Your task to perform on an android device: open app "TextNow: Call + Text Unlimited" (install if not already installed) Image 0: 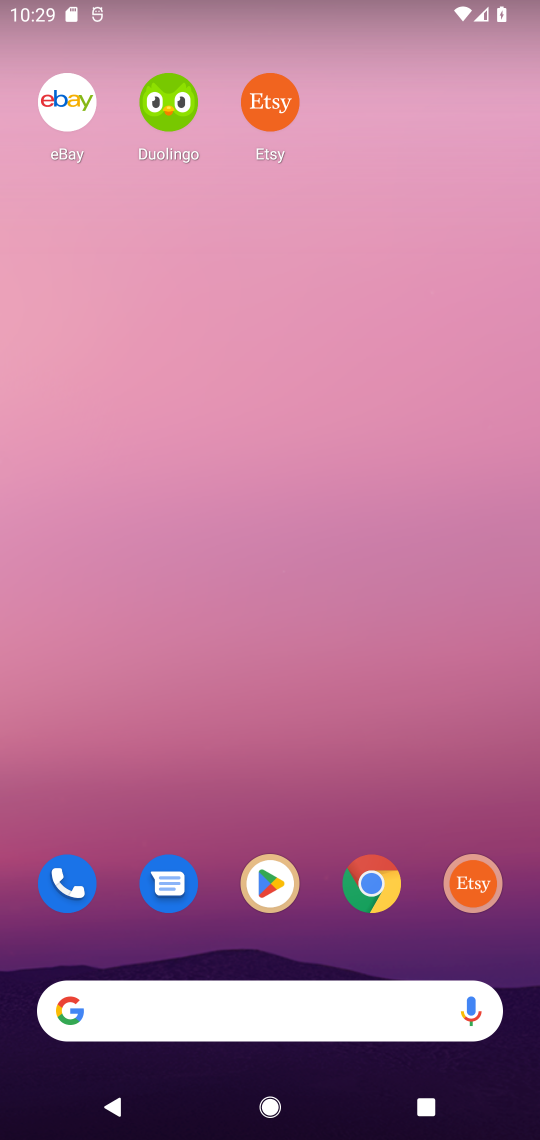
Step 0: click (268, 889)
Your task to perform on an android device: open app "TextNow: Call + Text Unlimited" (install if not already installed) Image 1: 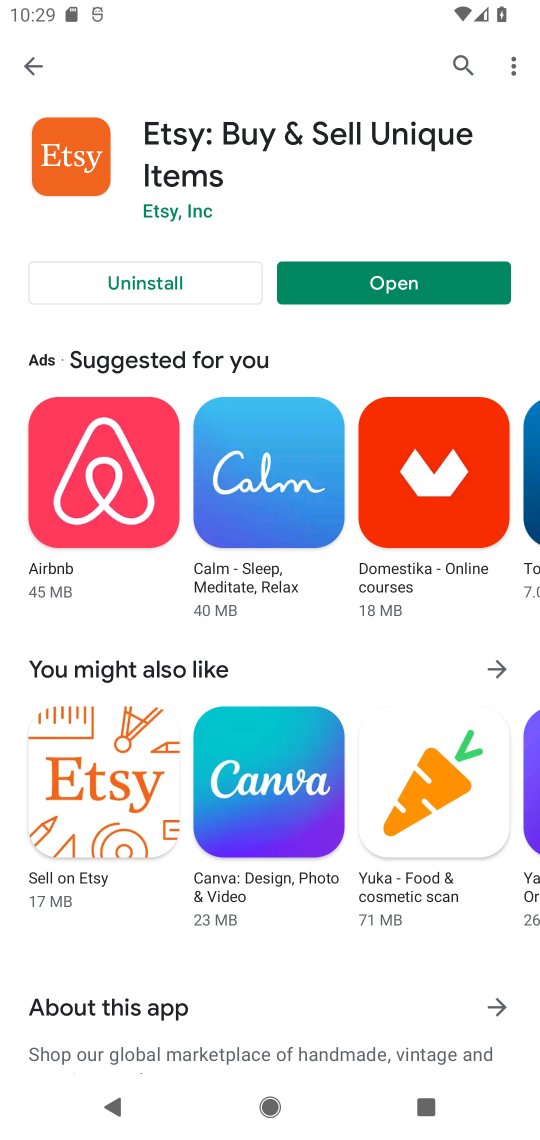
Step 1: click (461, 56)
Your task to perform on an android device: open app "TextNow: Call + Text Unlimited" (install if not already installed) Image 2: 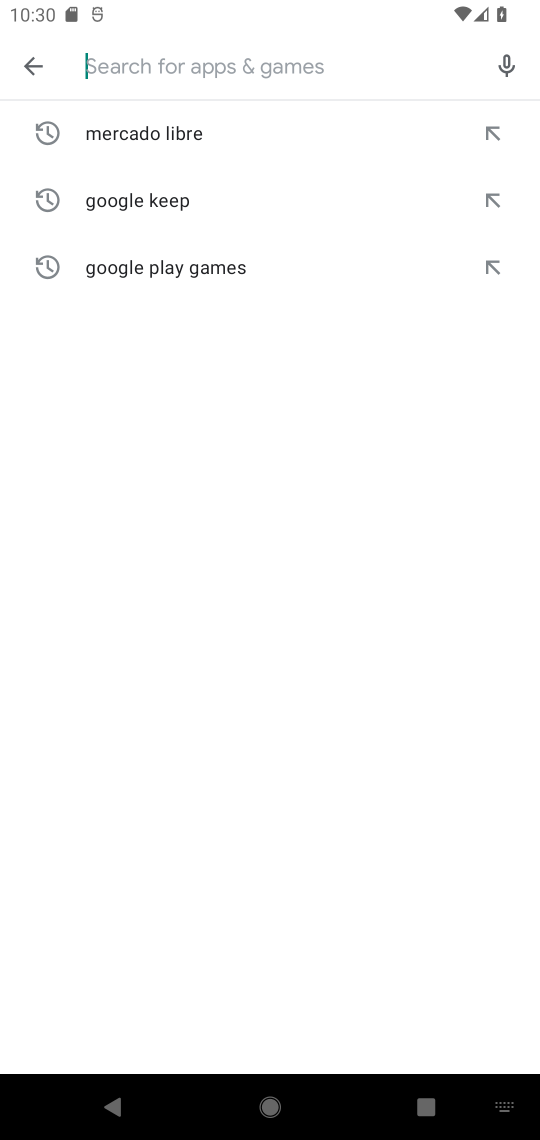
Step 2: type "TextNow: Call + Text Unlimited"
Your task to perform on an android device: open app "TextNow: Call + Text Unlimited" (install if not already installed) Image 3: 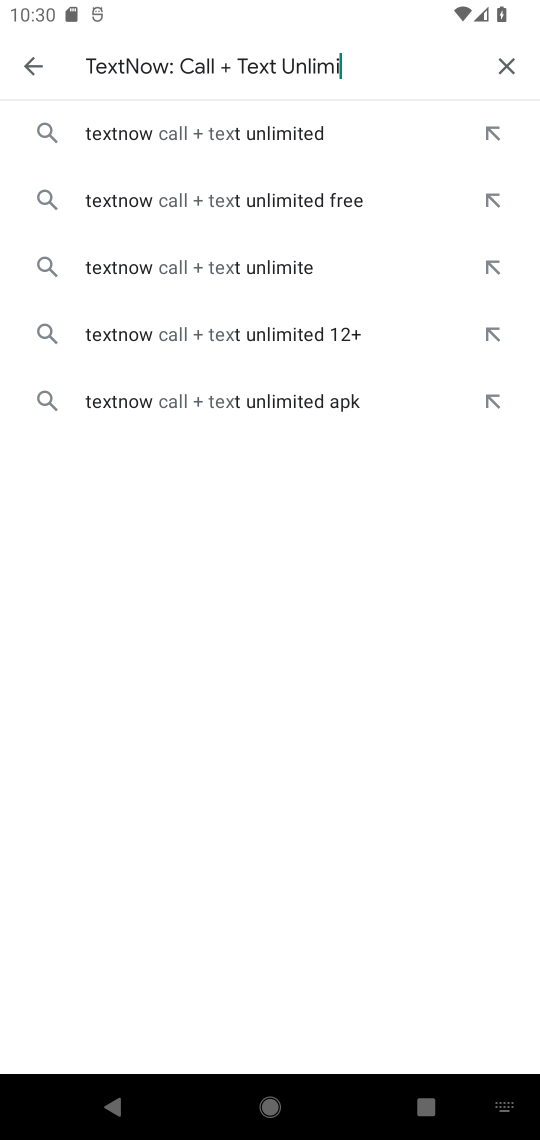
Step 3: type ""
Your task to perform on an android device: open app "TextNow: Call + Text Unlimited" (install if not already installed) Image 4: 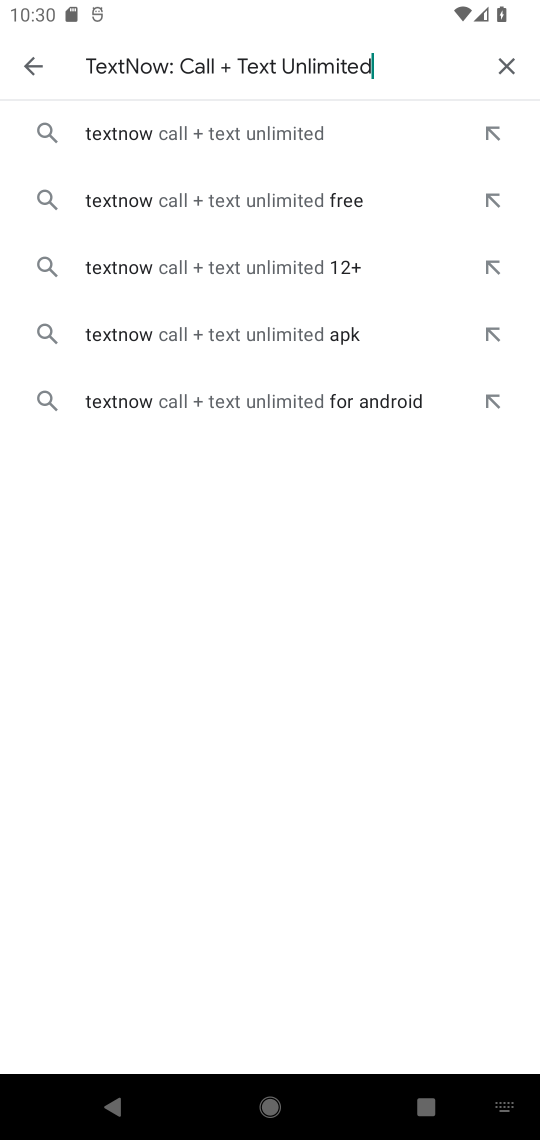
Step 4: click (253, 126)
Your task to perform on an android device: open app "TextNow: Call + Text Unlimited" (install if not already installed) Image 5: 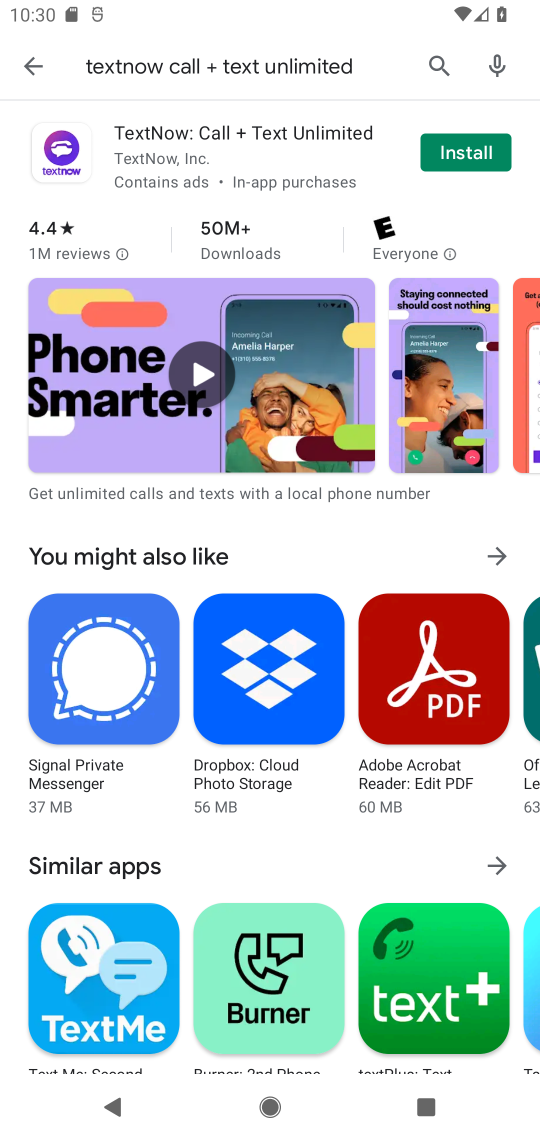
Step 5: click (469, 152)
Your task to perform on an android device: open app "TextNow: Call + Text Unlimited" (install if not already installed) Image 6: 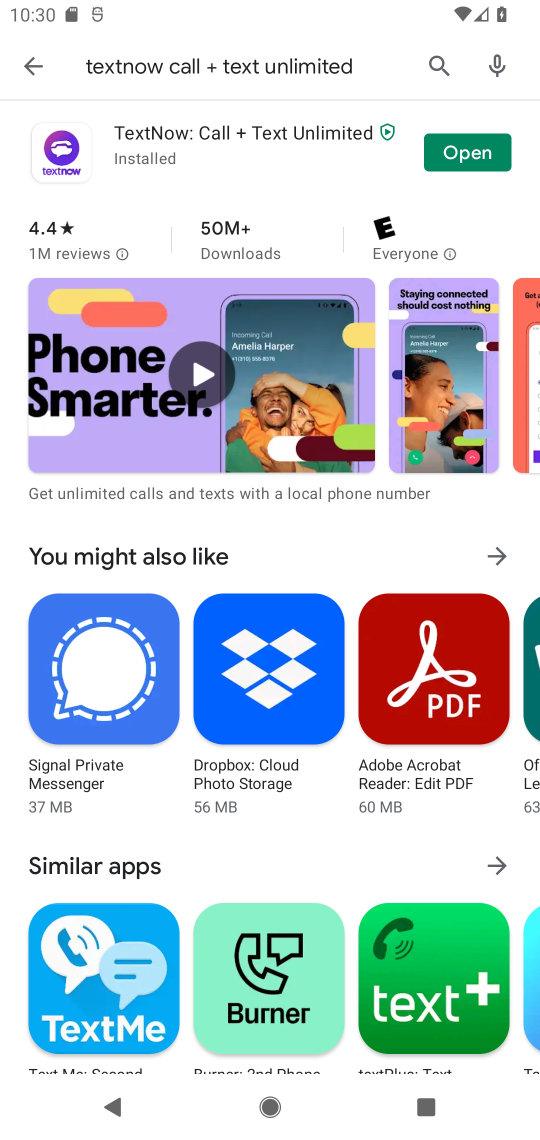
Step 6: click (464, 148)
Your task to perform on an android device: open app "TextNow: Call + Text Unlimited" (install if not already installed) Image 7: 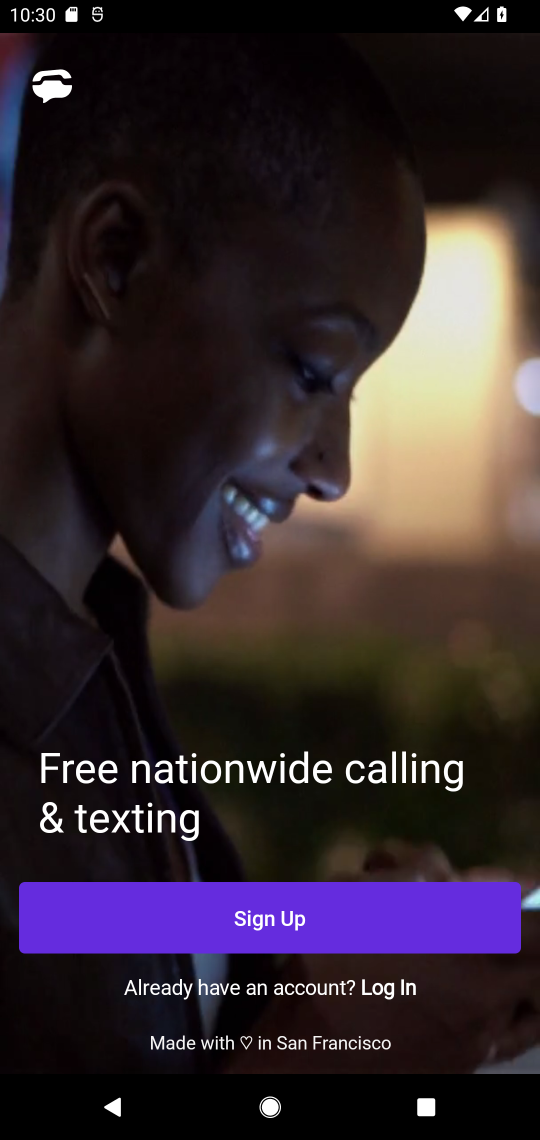
Step 7: task complete